Your task to perform on an android device: Show the shopping cart on ebay.com. Add "logitech g502" to the cart on ebay.com Image 0: 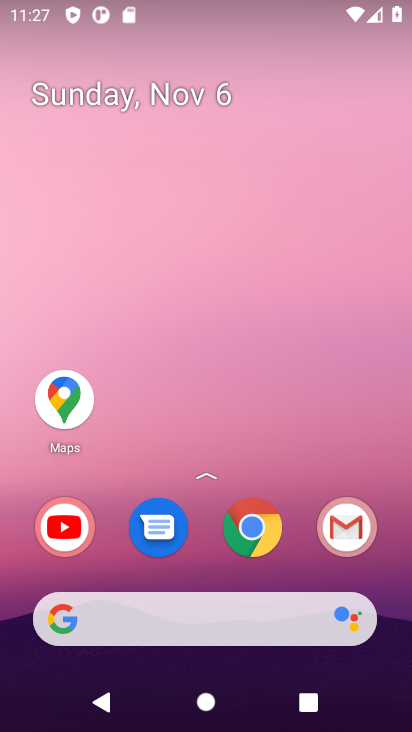
Step 0: drag from (189, 471) to (254, 41)
Your task to perform on an android device: Show the shopping cart on ebay.com. Add "logitech g502" to the cart on ebay.com Image 1: 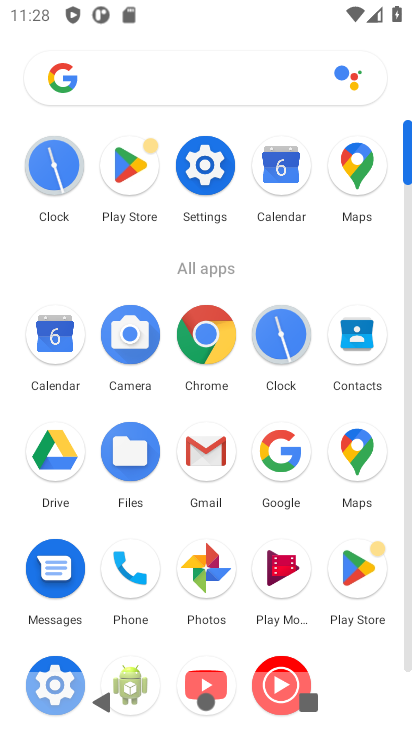
Step 1: click (215, 351)
Your task to perform on an android device: Show the shopping cart on ebay.com. Add "logitech g502" to the cart on ebay.com Image 2: 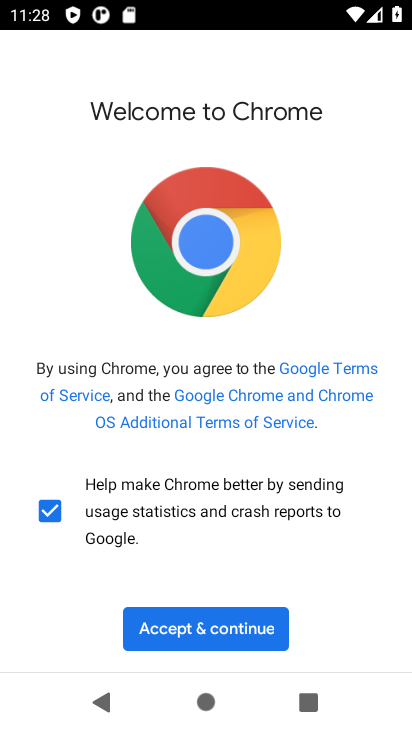
Step 2: click (245, 620)
Your task to perform on an android device: Show the shopping cart on ebay.com. Add "logitech g502" to the cart on ebay.com Image 3: 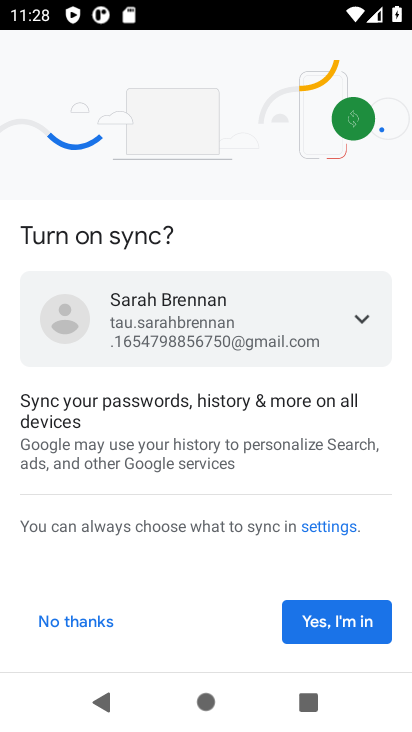
Step 3: click (344, 621)
Your task to perform on an android device: Show the shopping cart on ebay.com. Add "logitech g502" to the cart on ebay.com Image 4: 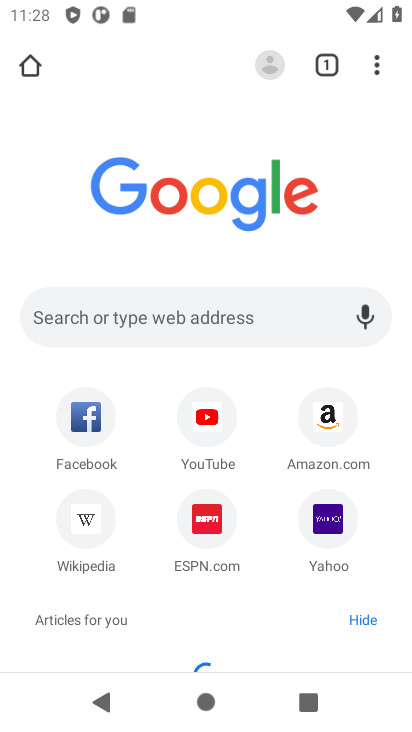
Step 4: click (131, 316)
Your task to perform on an android device: Show the shopping cart on ebay.com. Add "logitech g502" to the cart on ebay.com Image 5: 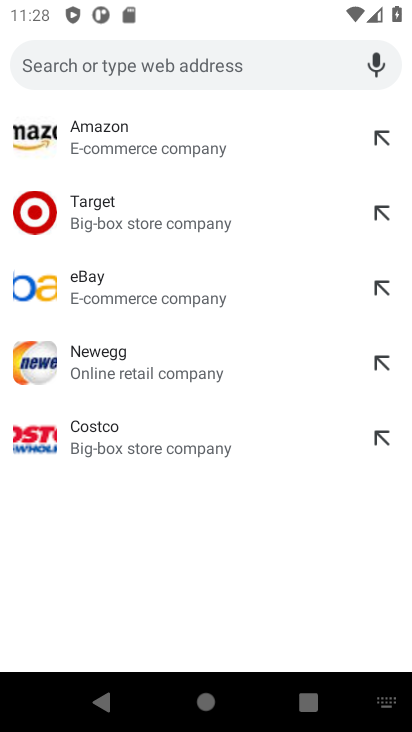
Step 5: type "ebay.com"
Your task to perform on an android device: Show the shopping cart on ebay.com. Add "logitech g502" to the cart on ebay.com Image 6: 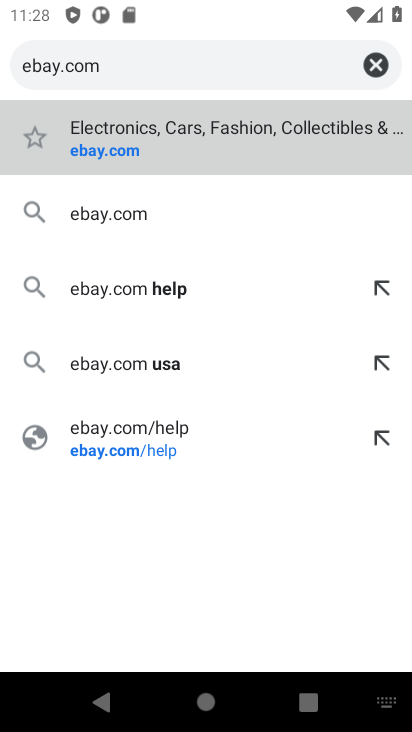
Step 6: press enter
Your task to perform on an android device: Show the shopping cart on ebay.com. Add "logitech g502" to the cart on ebay.com Image 7: 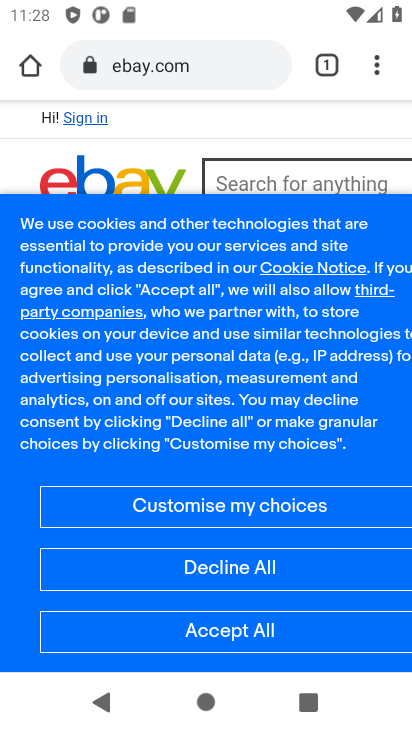
Step 7: click (245, 179)
Your task to perform on an android device: Show the shopping cart on ebay.com. Add "logitech g502" to the cart on ebay.com Image 8: 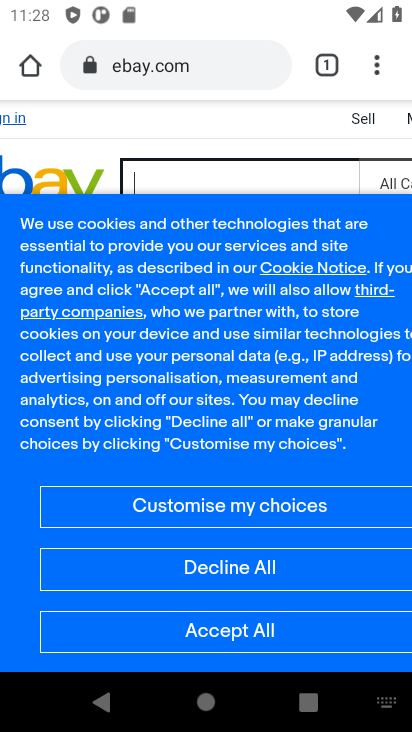
Step 8: click (245, 179)
Your task to perform on an android device: Show the shopping cart on ebay.com. Add "logitech g502" to the cart on ebay.com Image 9: 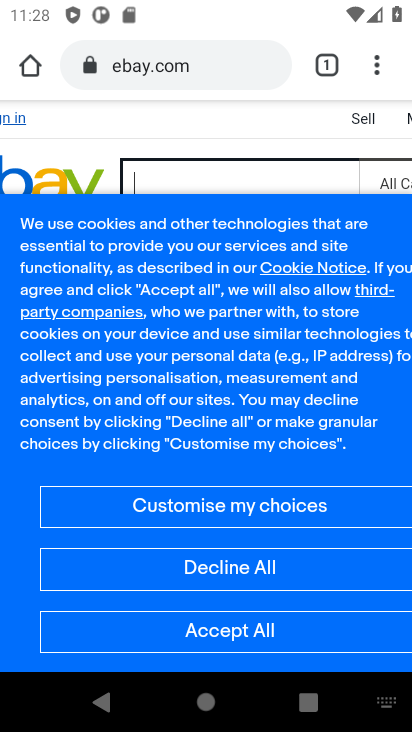
Step 9: click (250, 648)
Your task to perform on an android device: Show the shopping cart on ebay.com. Add "logitech g502" to the cart on ebay.com Image 10: 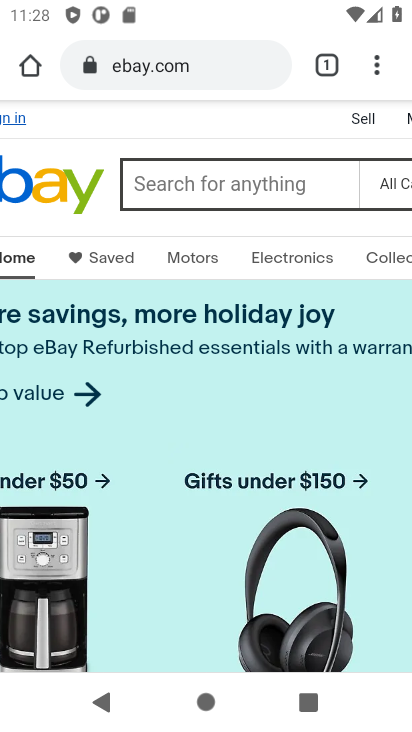
Step 10: click (221, 187)
Your task to perform on an android device: Show the shopping cart on ebay.com. Add "logitech g502" to the cart on ebay.com Image 11: 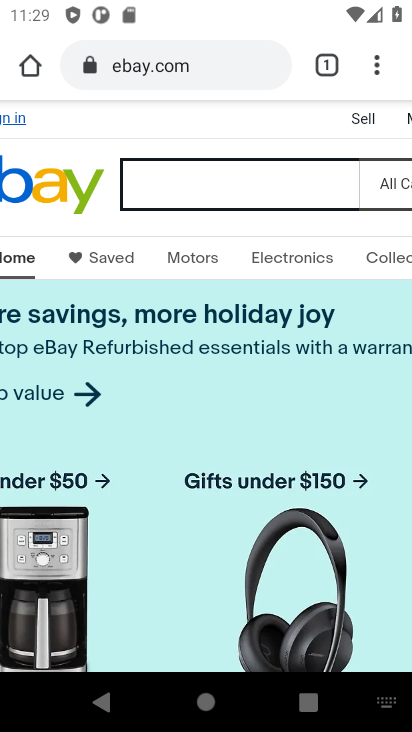
Step 11: type "logitech g502"
Your task to perform on an android device: Show the shopping cart on ebay.com. Add "logitech g502" to the cart on ebay.com Image 12: 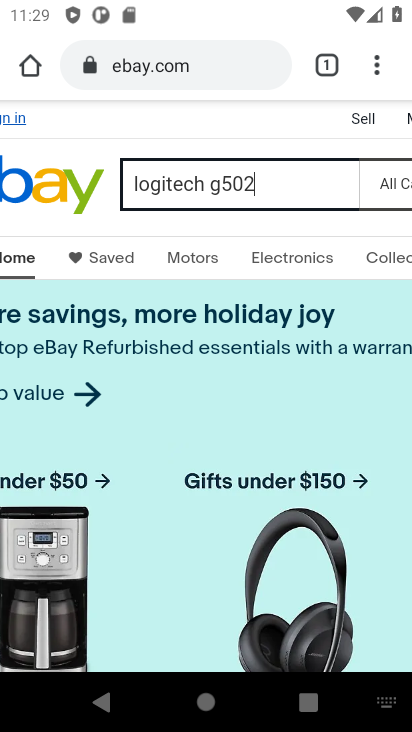
Step 12: press enter
Your task to perform on an android device: Show the shopping cart on ebay.com. Add "logitech g502" to the cart on ebay.com Image 13: 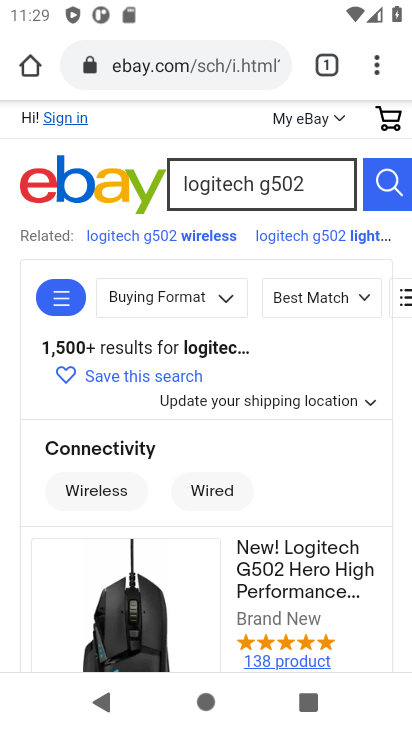
Step 13: drag from (279, 610) to (348, 269)
Your task to perform on an android device: Show the shopping cart on ebay.com. Add "logitech g502" to the cart on ebay.com Image 14: 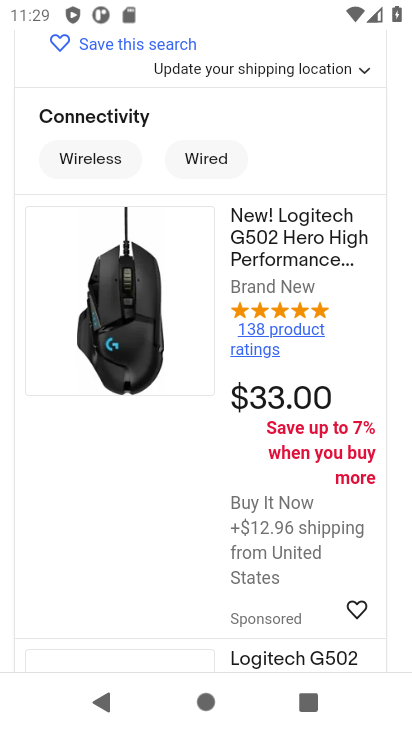
Step 14: drag from (215, 498) to (258, 231)
Your task to perform on an android device: Show the shopping cart on ebay.com. Add "logitech g502" to the cart on ebay.com Image 15: 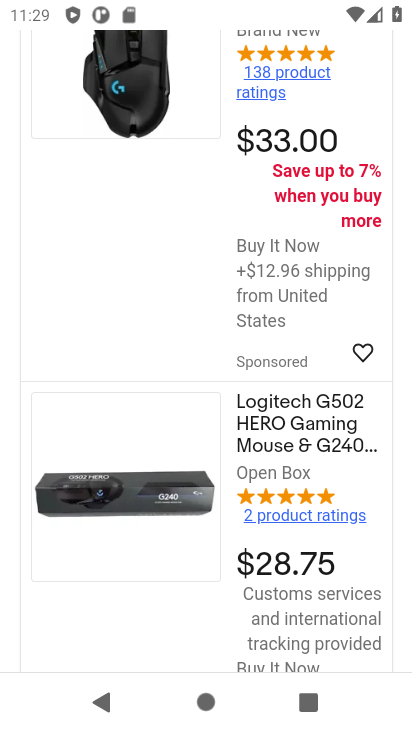
Step 15: click (119, 92)
Your task to perform on an android device: Show the shopping cart on ebay.com. Add "logitech g502" to the cart on ebay.com Image 16: 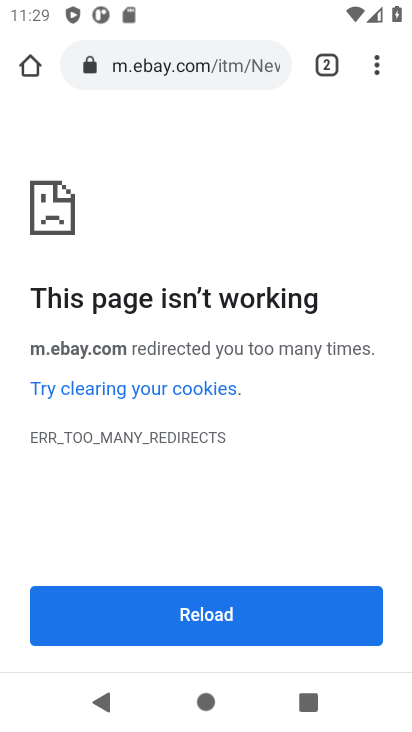
Step 16: click (209, 616)
Your task to perform on an android device: Show the shopping cart on ebay.com. Add "logitech g502" to the cart on ebay.com Image 17: 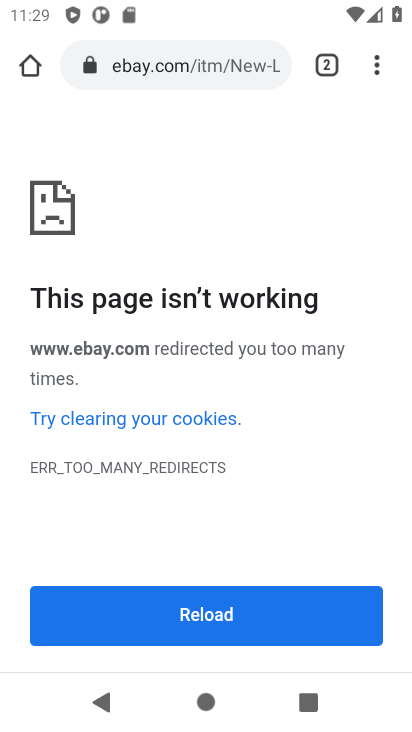
Step 17: task complete